Your task to perform on an android device: Search for Italian restaurants on Maps Image 0: 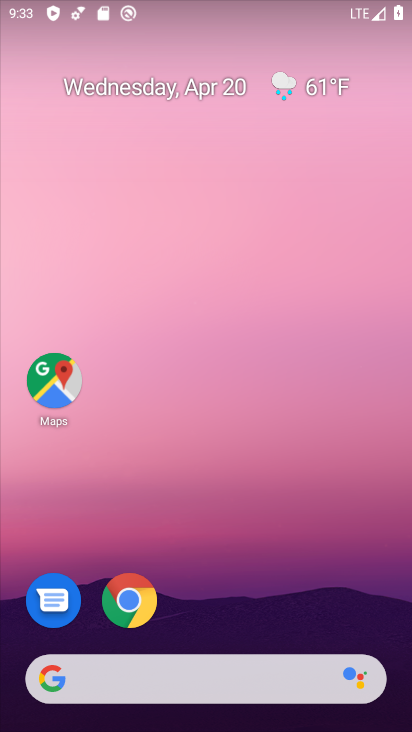
Step 0: click (47, 377)
Your task to perform on an android device: Search for Italian restaurants on Maps Image 1: 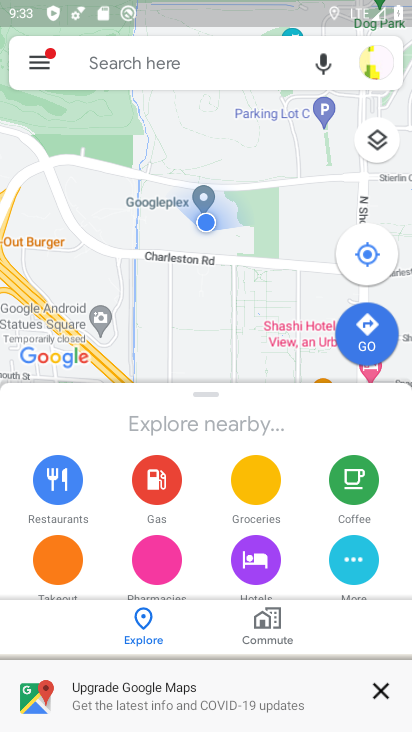
Step 1: click (208, 61)
Your task to perform on an android device: Search for Italian restaurants on Maps Image 2: 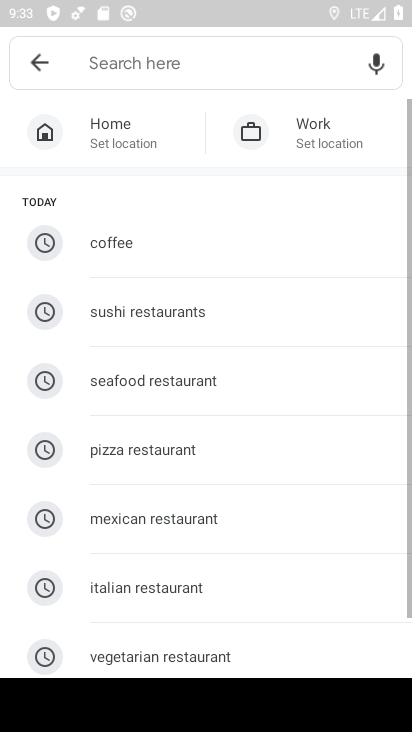
Step 2: click (198, 53)
Your task to perform on an android device: Search for Italian restaurants on Maps Image 3: 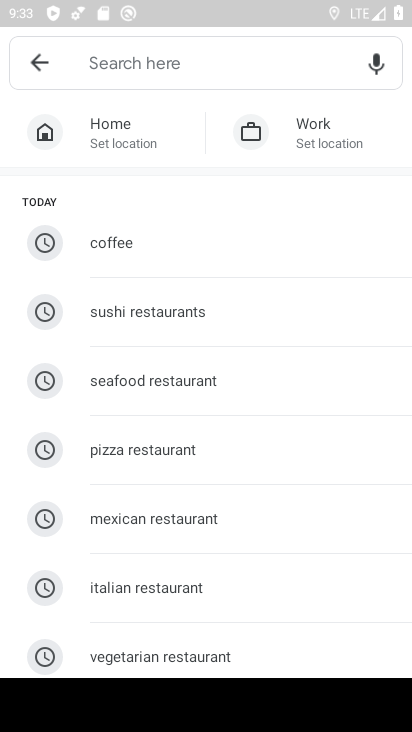
Step 3: click (156, 577)
Your task to perform on an android device: Search for Italian restaurants on Maps Image 4: 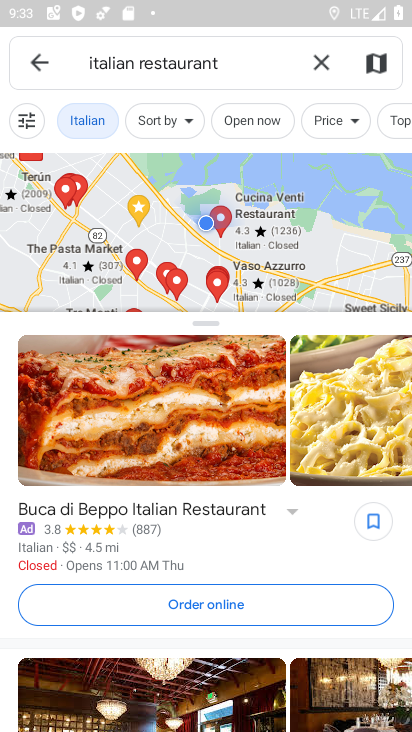
Step 4: task complete